Your task to perform on an android device: Go to Android settings Image 0: 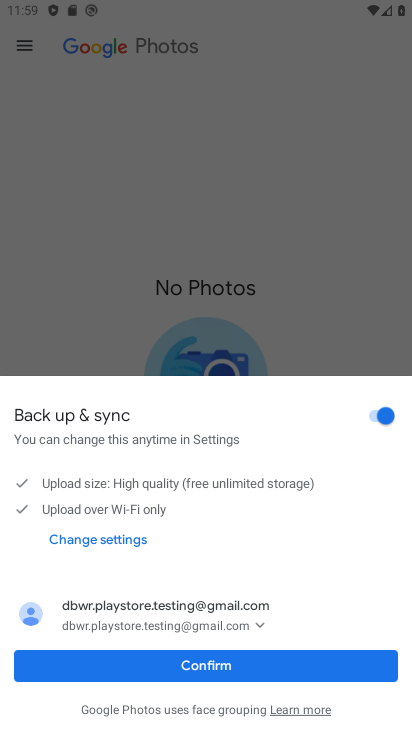
Step 0: press home button
Your task to perform on an android device: Go to Android settings Image 1: 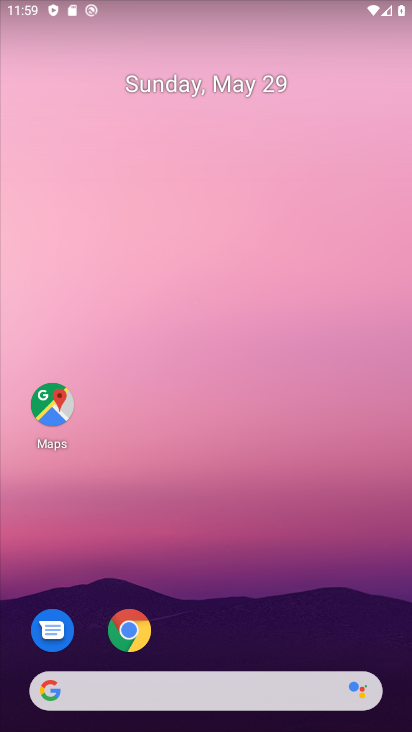
Step 1: drag from (132, 722) to (214, 39)
Your task to perform on an android device: Go to Android settings Image 2: 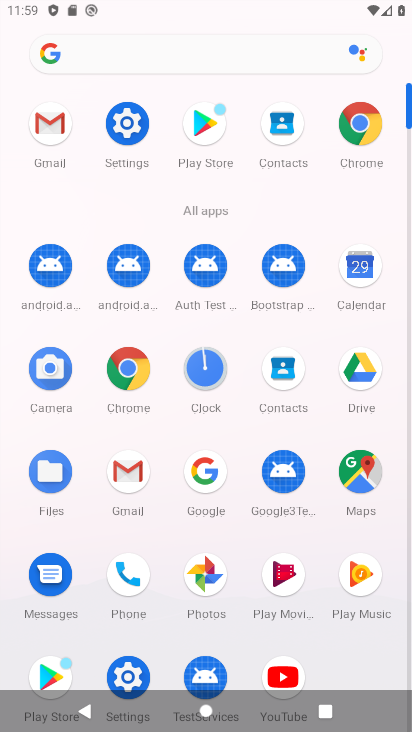
Step 2: click (129, 128)
Your task to perform on an android device: Go to Android settings Image 3: 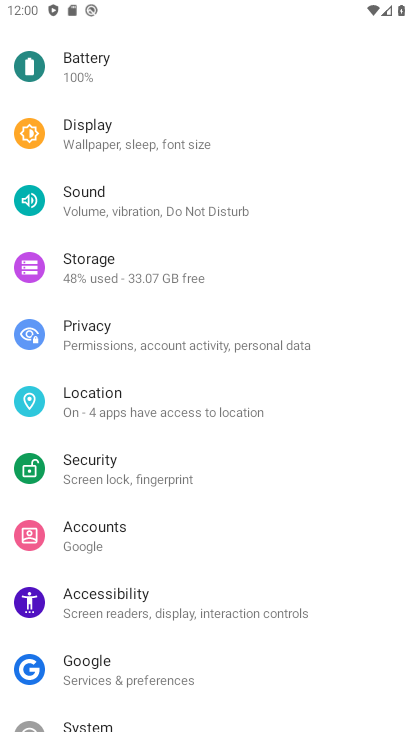
Step 3: task complete